Your task to perform on an android device: Show me the alarms in the clock app Image 0: 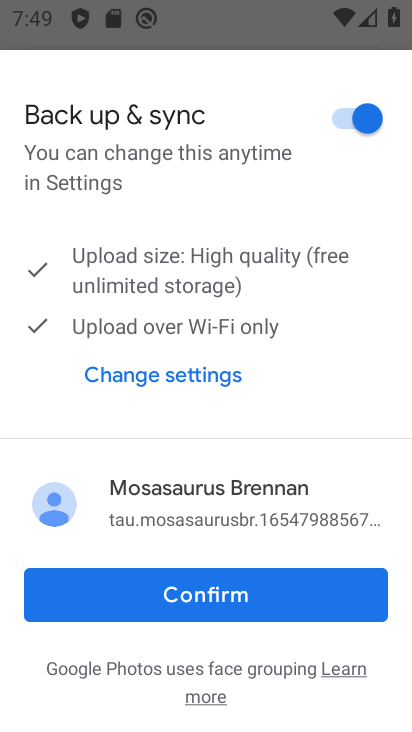
Step 0: click (177, 582)
Your task to perform on an android device: Show me the alarms in the clock app Image 1: 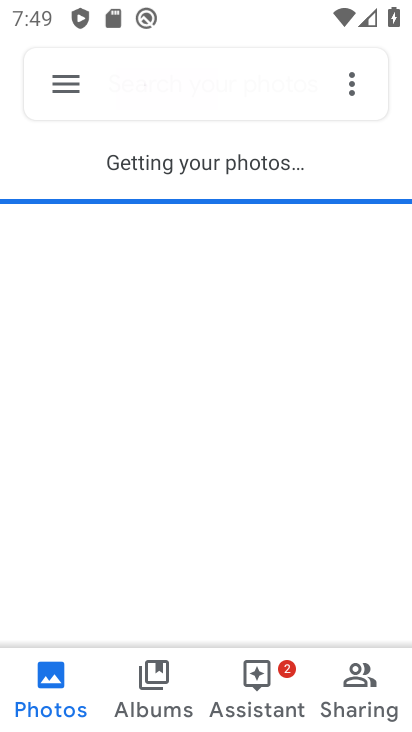
Step 1: press back button
Your task to perform on an android device: Show me the alarms in the clock app Image 2: 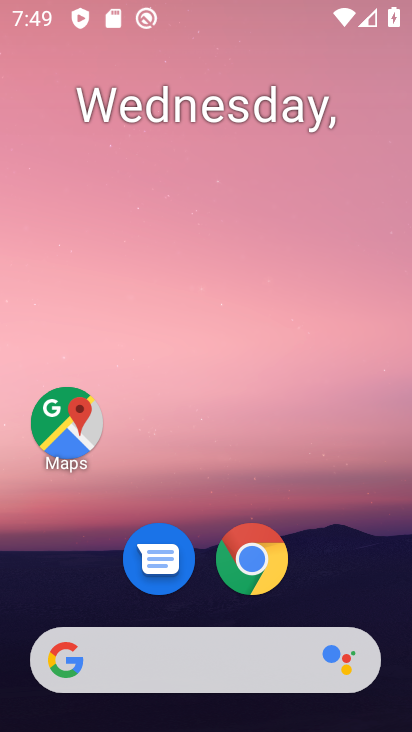
Step 2: press back button
Your task to perform on an android device: Show me the alarms in the clock app Image 3: 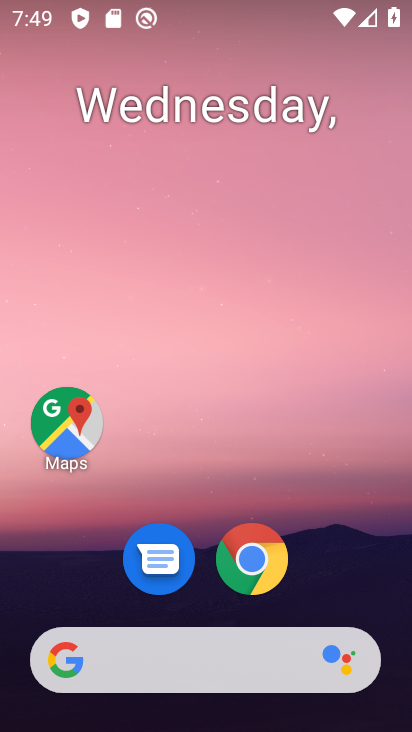
Step 3: drag from (288, 410) to (295, 8)
Your task to perform on an android device: Show me the alarms in the clock app Image 4: 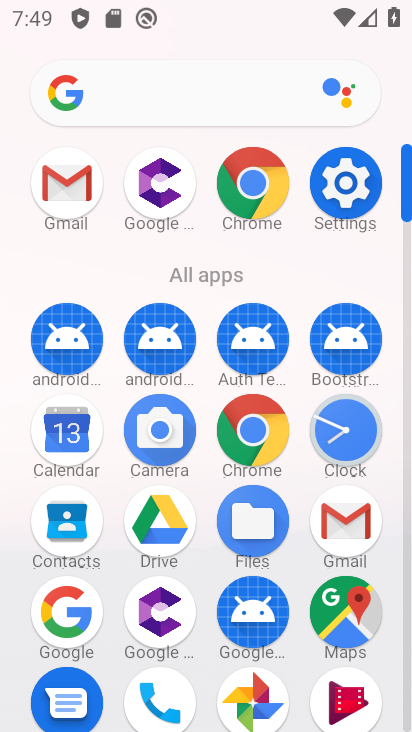
Step 4: click (352, 419)
Your task to perform on an android device: Show me the alarms in the clock app Image 5: 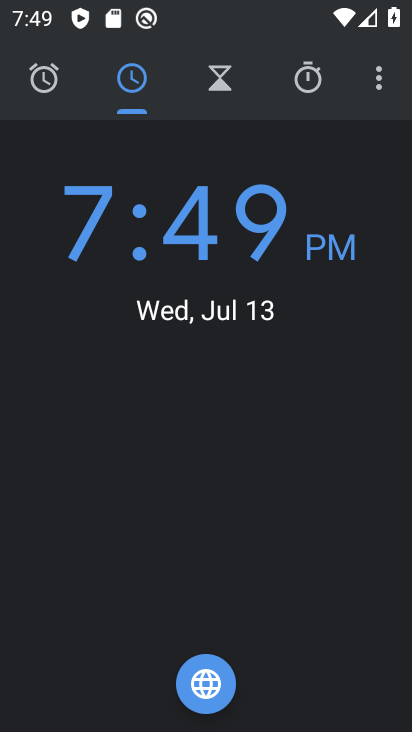
Step 5: click (44, 85)
Your task to perform on an android device: Show me the alarms in the clock app Image 6: 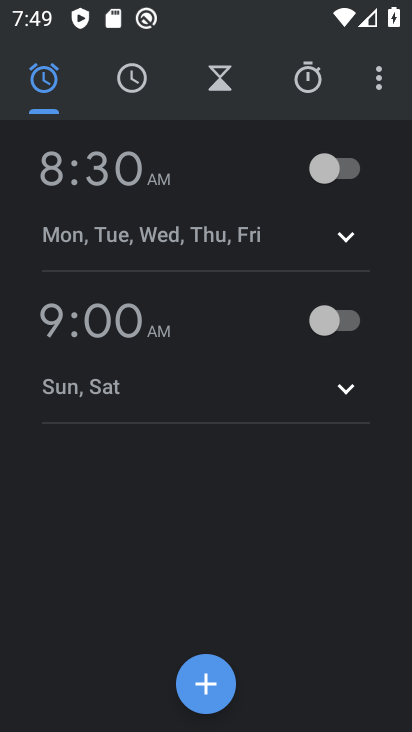
Step 6: task complete